Your task to perform on an android device: Find coffee shops on Maps Image 0: 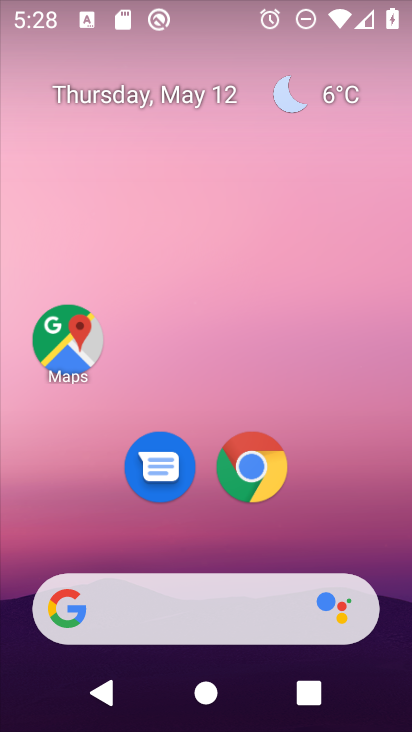
Step 0: drag from (280, 640) to (275, 110)
Your task to perform on an android device: Find coffee shops on Maps Image 1: 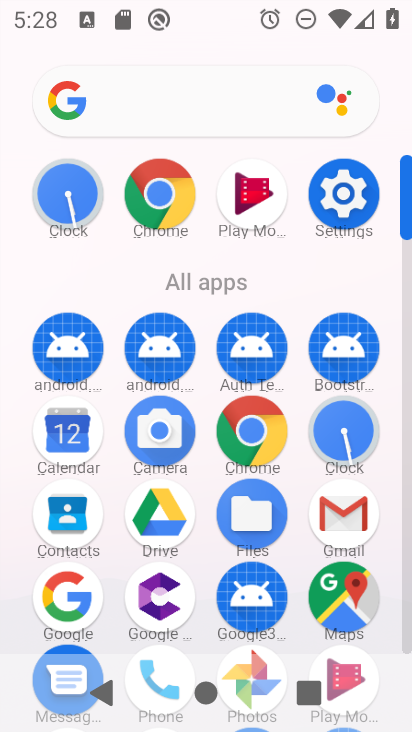
Step 1: click (333, 590)
Your task to perform on an android device: Find coffee shops on Maps Image 2: 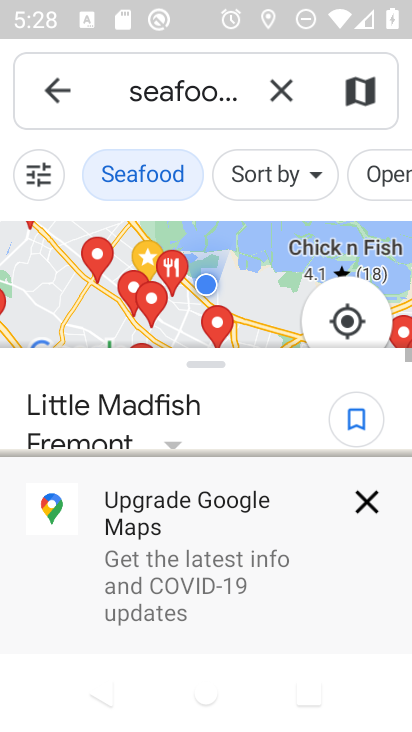
Step 2: click (280, 90)
Your task to perform on an android device: Find coffee shops on Maps Image 3: 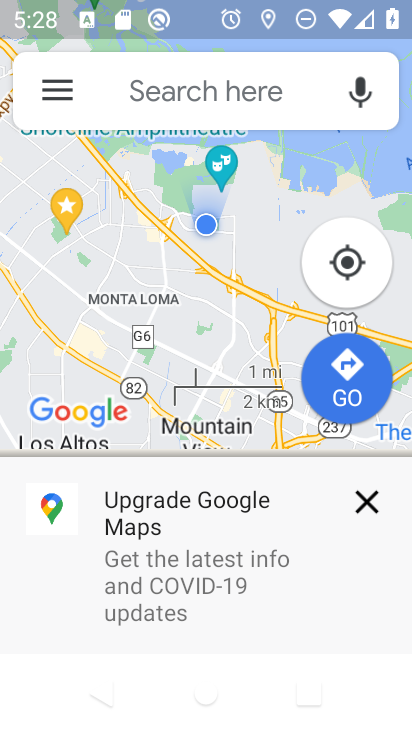
Step 3: click (219, 112)
Your task to perform on an android device: Find coffee shops on Maps Image 4: 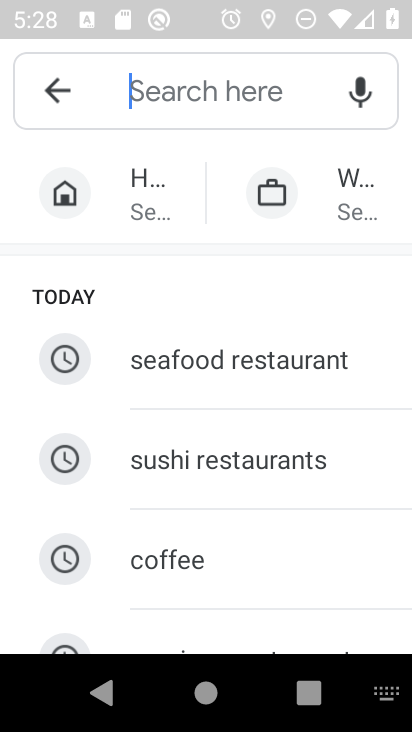
Step 4: type "coffee shops"
Your task to perform on an android device: Find coffee shops on Maps Image 5: 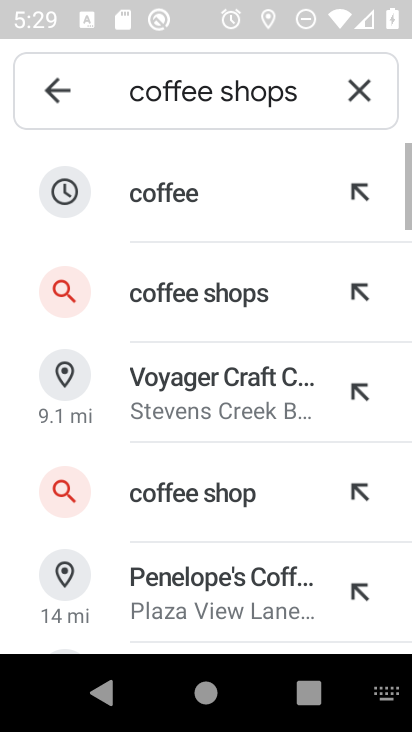
Step 5: click (317, 289)
Your task to perform on an android device: Find coffee shops on Maps Image 6: 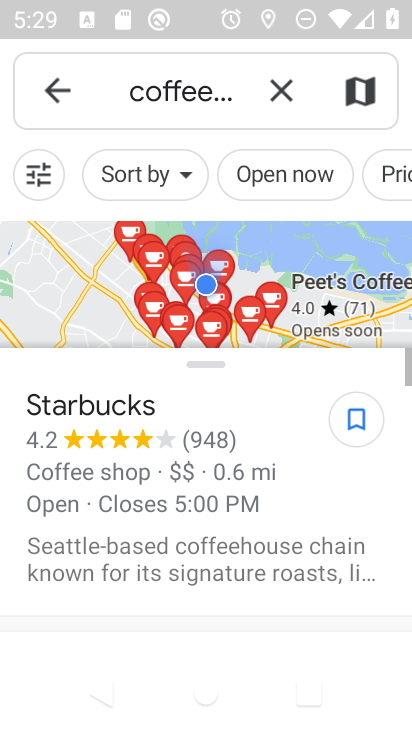
Step 6: task complete